Your task to perform on an android device: open chrome and create a bookmark for the current page Image 0: 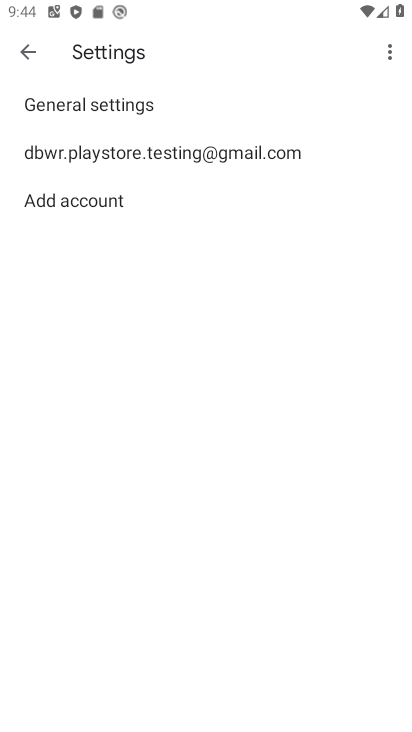
Step 0: click (33, 48)
Your task to perform on an android device: open chrome and create a bookmark for the current page Image 1: 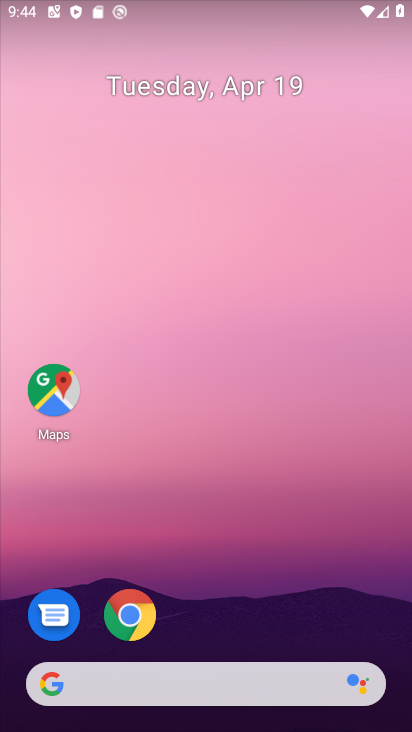
Step 1: drag from (194, 619) to (143, 10)
Your task to perform on an android device: open chrome and create a bookmark for the current page Image 2: 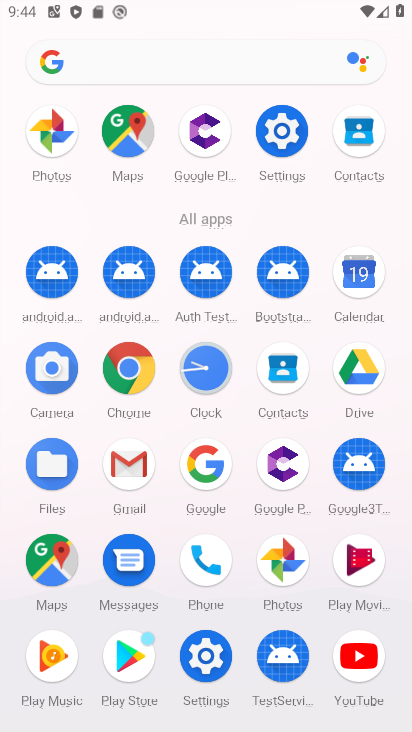
Step 2: click (138, 361)
Your task to perform on an android device: open chrome and create a bookmark for the current page Image 3: 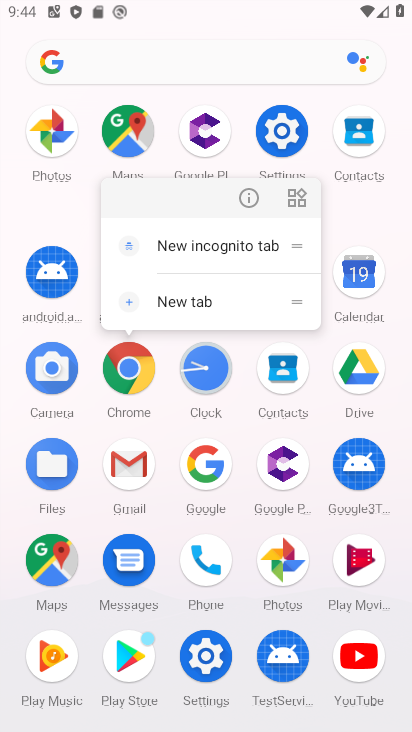
Step 3: click (252, 192)
Your task to perform on an android device: open chrome and create a bookmark for the current page Image 4: 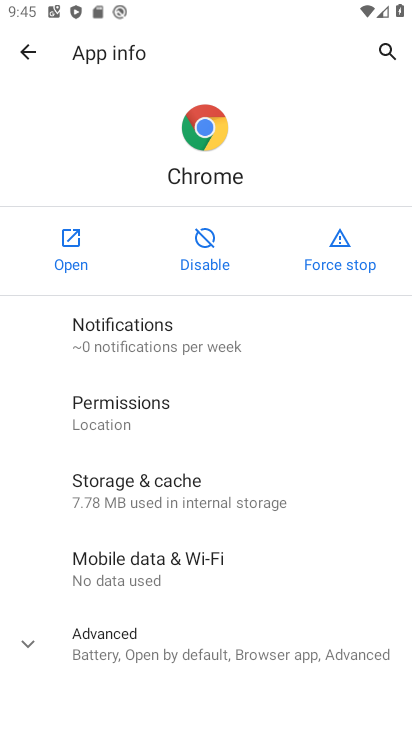
Step 4: drag from (42, 233) to (78, 247)
Your task to perform on an android device: open chrome and create a bookmark for the current page Image 5: 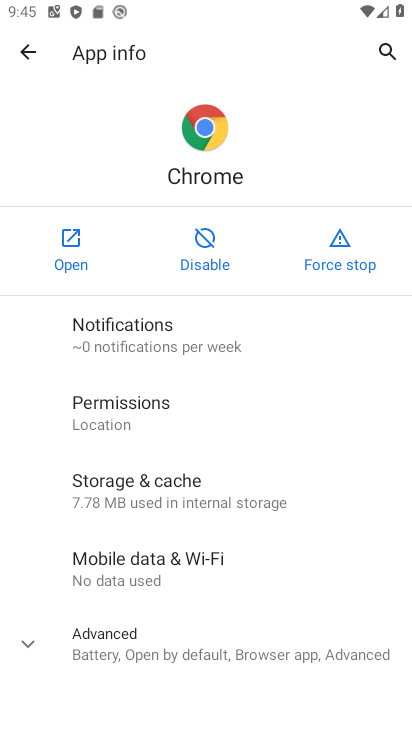
Step 5: click (59, 265)
Your task to perform on an android device: open chrome and create a bookmark for the current page Image 6: 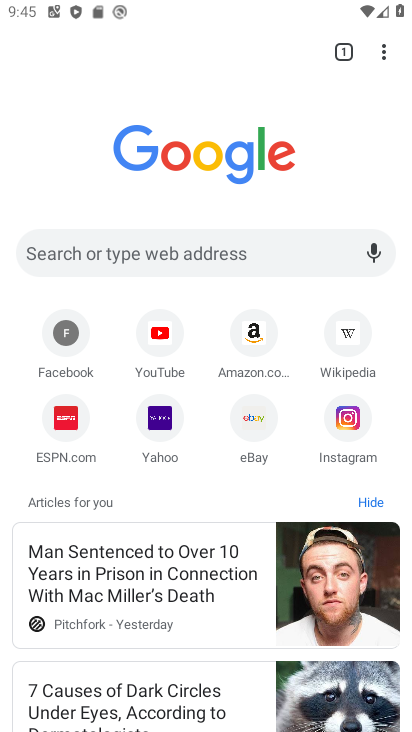
Step 6: click (388, 46)
Your task to perform on an android device: open chrome and create a bookmark for the current page Image 7: 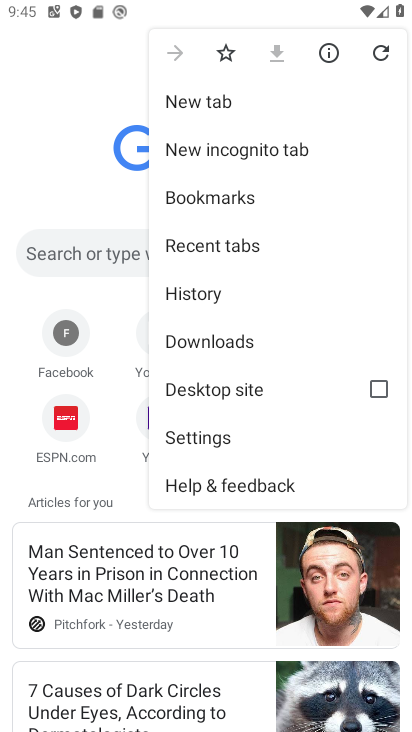
Step 7: click (234, 189)
Your task to perform on an android device: open chrome and create a bookmark for the current page Image 8: 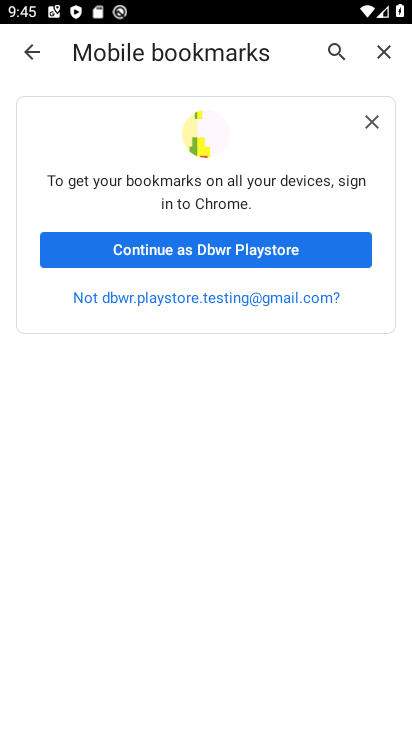
Step 8: click (373, 54)
Your task to perform on an android device: open chrome and create a bookmark for the current page Image 9: 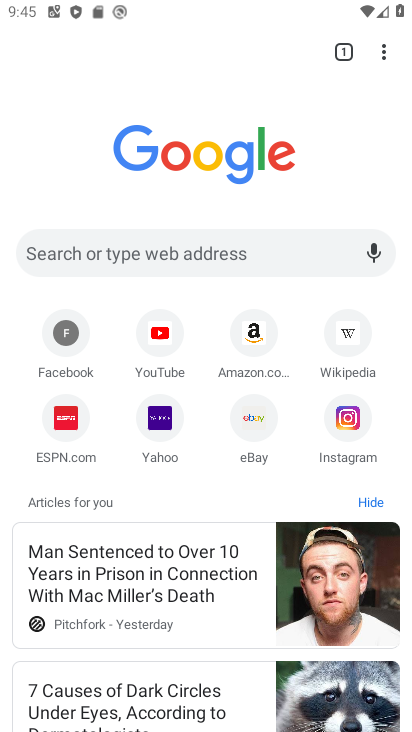
Step 9: click (169, 323)
Your task to perform on an android device: open chrome and create a bookmark for the current page Image 10: 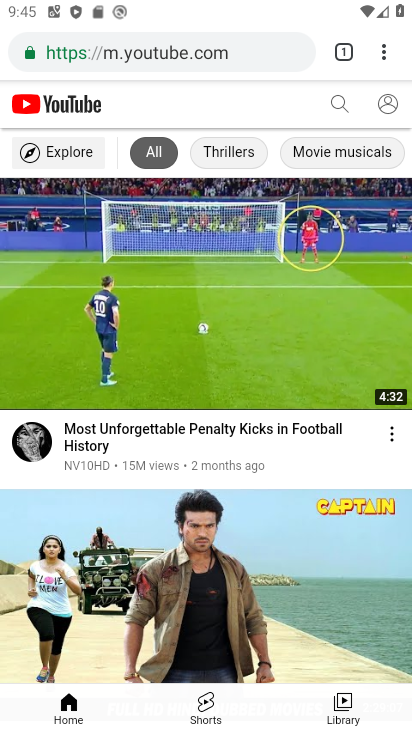
Step 10: drag from (379, 56) to (228, 48)
Your task to perform on an android device: open chrome and create a bookmark for the current page Image 11: 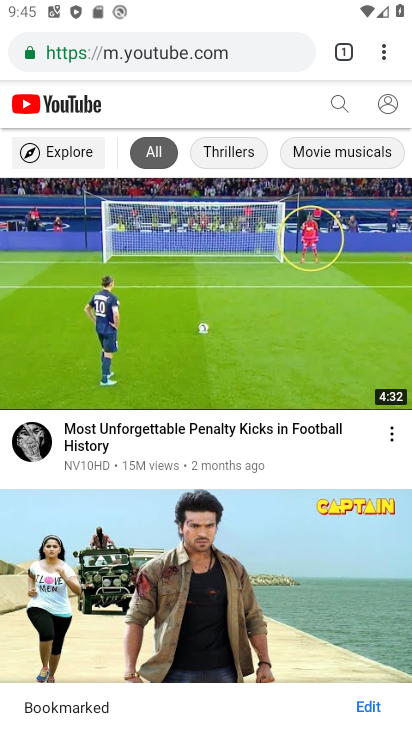
Step 11: click (267, 226)
Your task to perform on an android device: open chrome and create a bookmark for the current page Image 12: 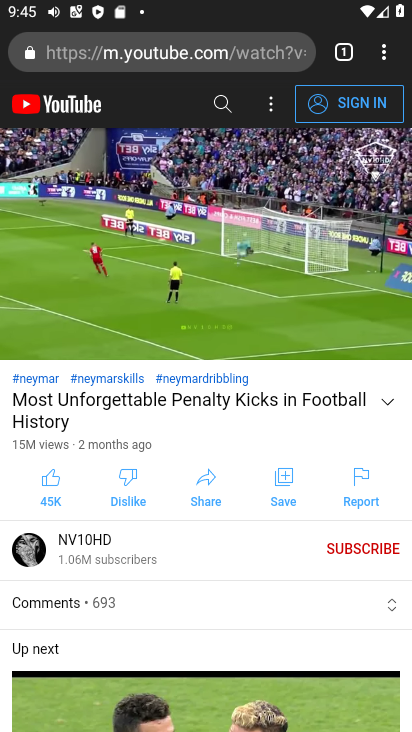
Step 12: task complete